Your task to perform on an android device: see creations saved in the google photos Image 0: 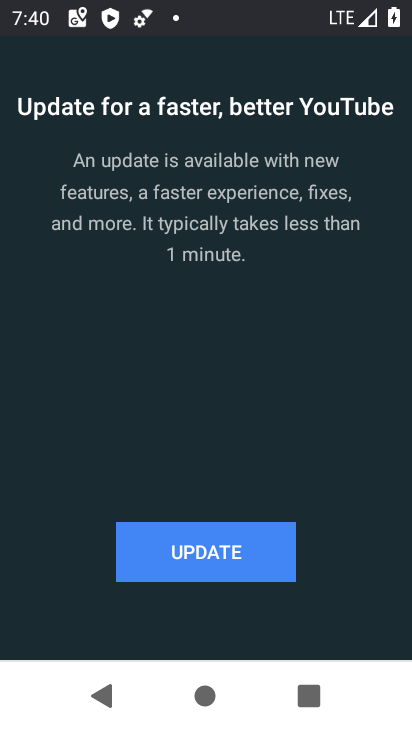
Step 0: press home button
Your task to perform on an android device: see creations saved in the google photos Image 1: 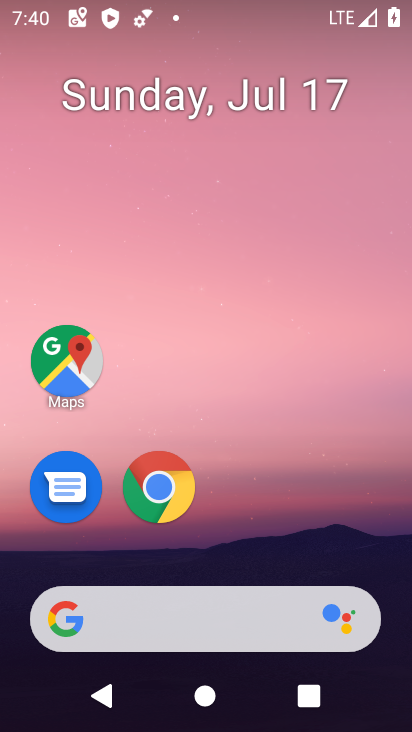
Step 1: drag from (358, 547) to (372, 76)
Your task to perform on an android device: see creations saved in the google photos Image 2: 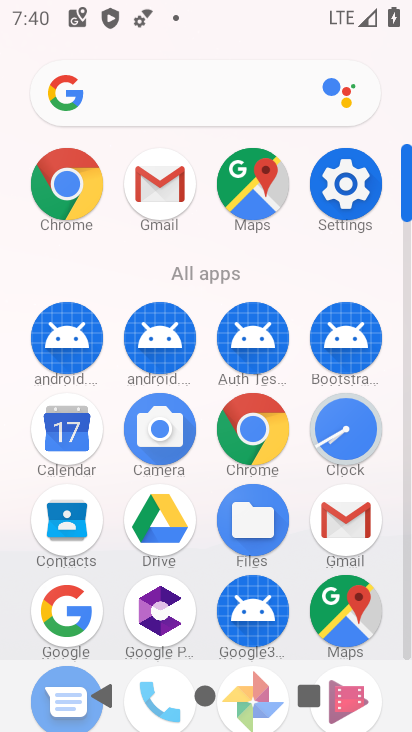
Step 2: drag from (387, 474) to (402, 171)
Your task to perform on an android device: see creations saved in the google photos Image 3: 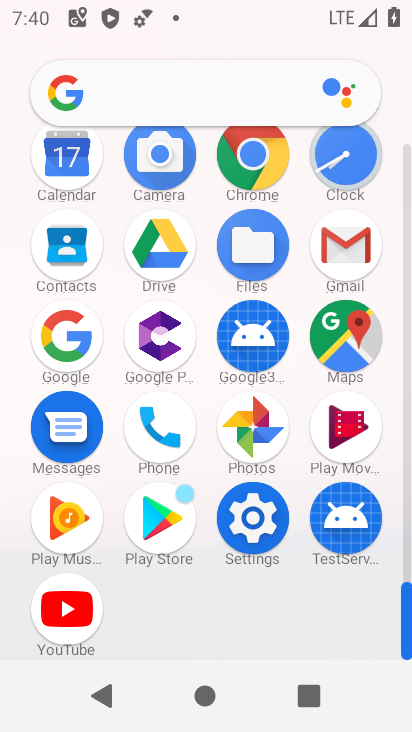
Step 3: click (246, 428)
Your task to perform on an android device: see creations saved in the google photos Image 4: 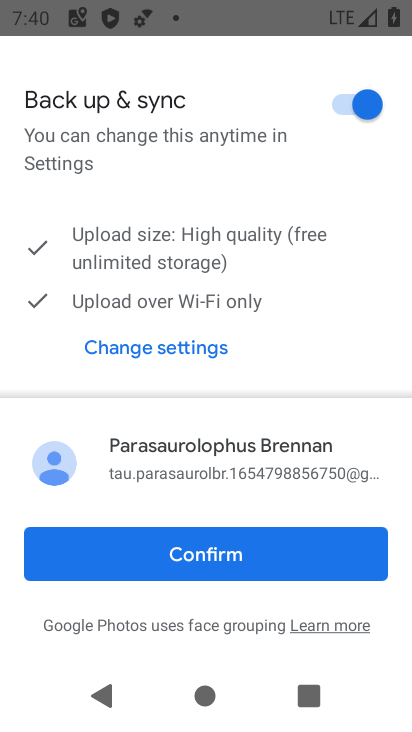
Step 4: click (196, 559)
Your task to perform on an android device: see creations saved in the google photos Image 5: 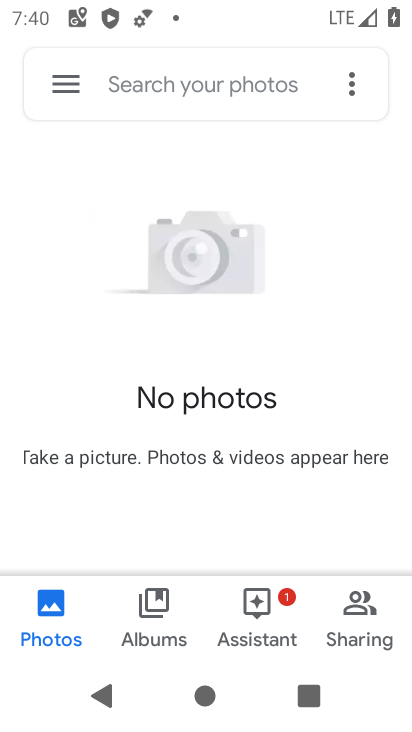
Step 5: click (188, 90)
Your task to perform on an android device: see creations saved in the google photos Image 6: 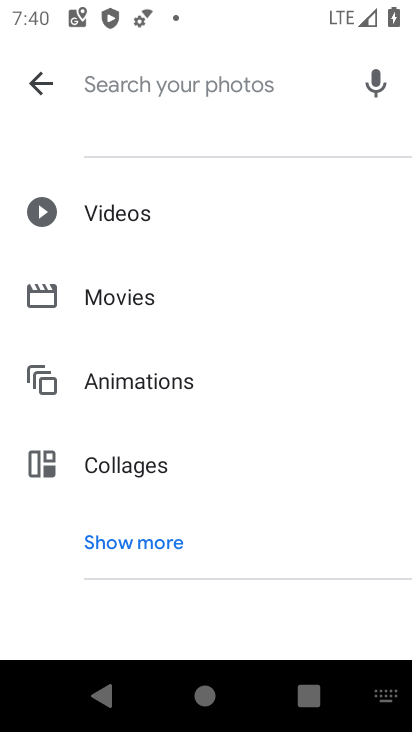
Step 6: click (189, 550)
Your task to perform on an android device: see creations saved in the google photos Image 7: 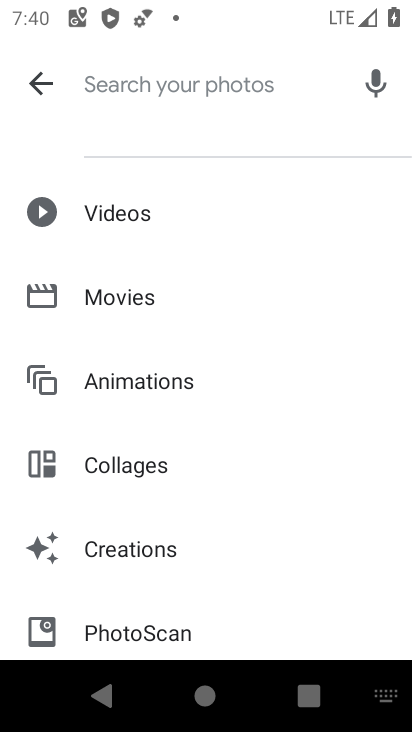
Step 7: click (190, 551)
Your task to perform on an android device: see creations saved in the google photos Image 8: 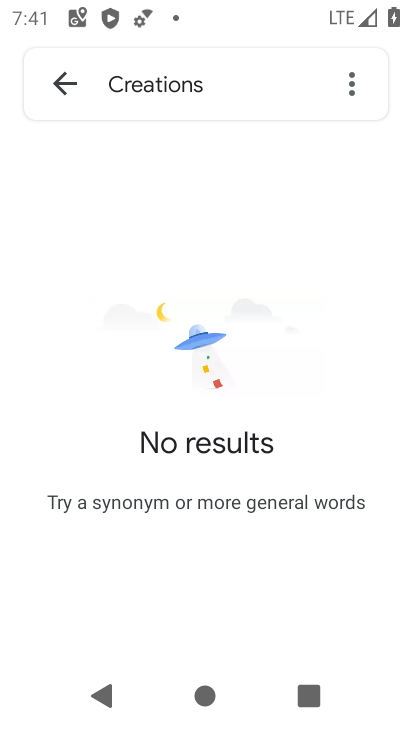
Step 8: task complete